Your task to perform on an android device: turn on data saver in the chrome app Image 0: 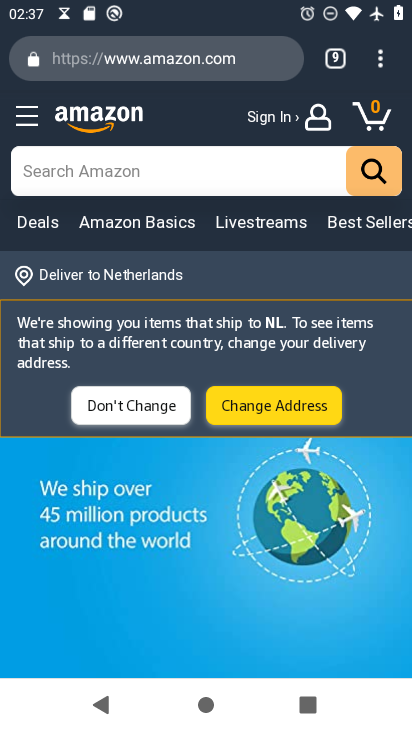
Step 0: press home button
Your task to perform on an android device: turn on data saver in the chrome app Image 1: 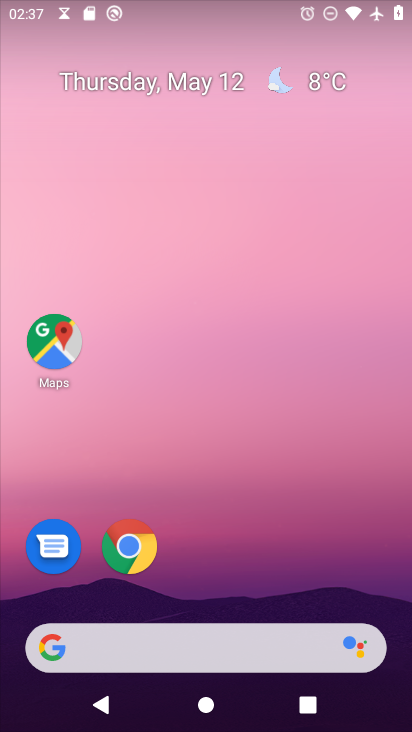
Step 1: drag from (174, 638) to (238, 311)
Your task to perform on an android device: turn on data saver in the chrome app Image 2: 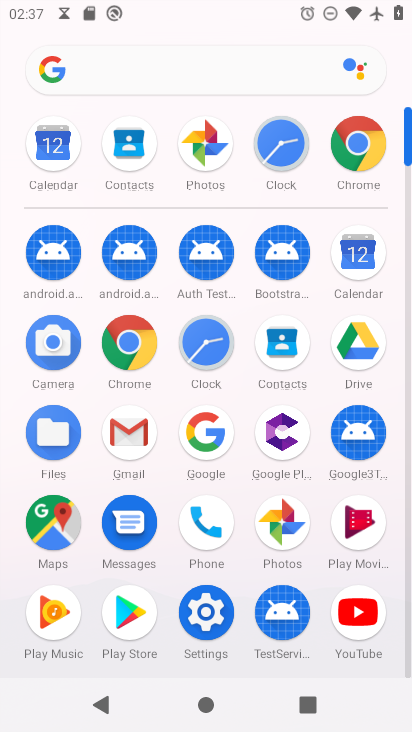
Step 2: click (349, 156)
Your task to perform on an android device: turn on data saver in the chrome app Image 3: 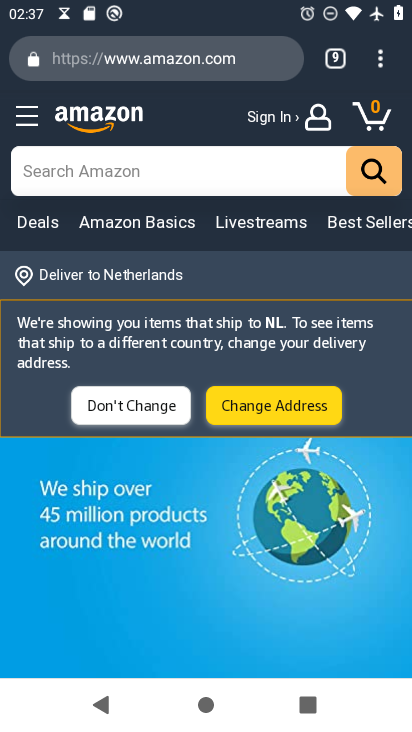
Step 3: drag from (380, 67) to (226, 579)
Your task to perform on an android device: turn on data saver in the chrome app Image 4: 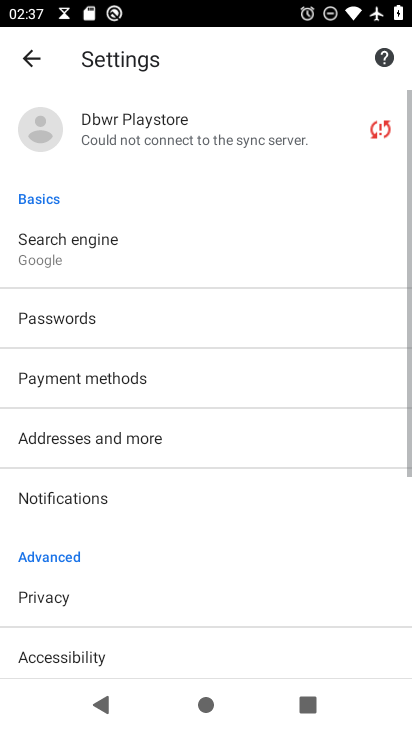
Step 4: drag from (187, 612) to (226, 377)
Your task to perform on an android device: turn on data saver in the chrome app Image 5: 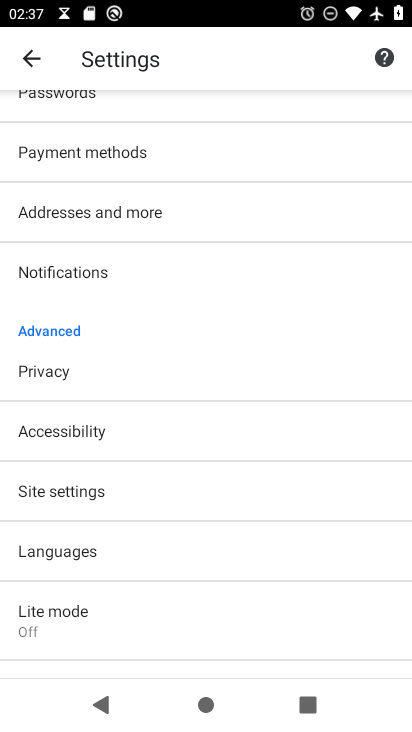
Step 5: click (108, 620)
Your task to perform on an android device: turn on data saver in the chrome app Image 6: 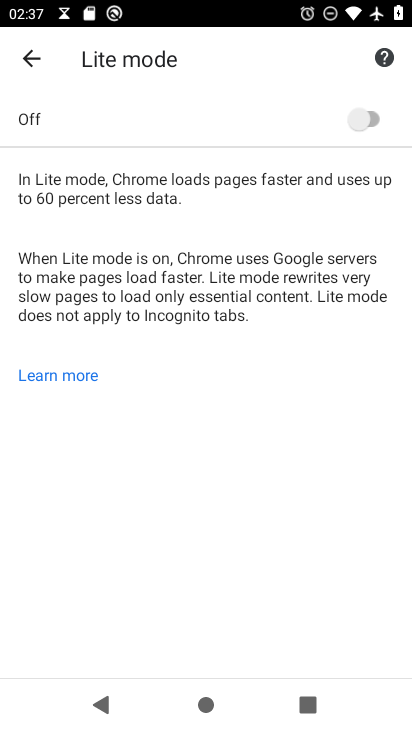
Step 6: click (372, 121)
Your task to perform on an android device: turn on data saver in the chrome app Image 7: 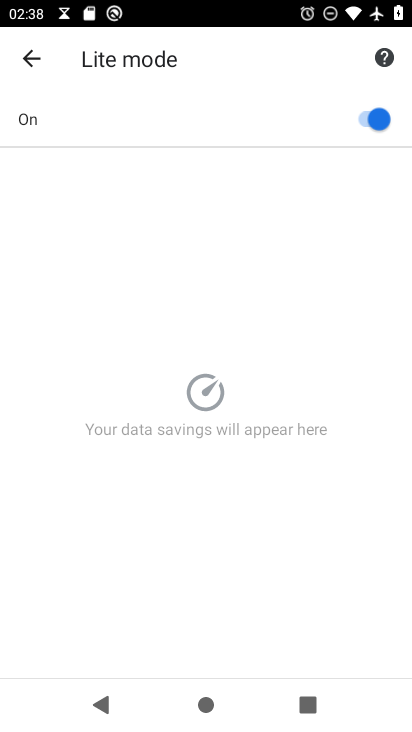
Step 7: task complete